Your task to perform on an android device: Go to Google Image 0: 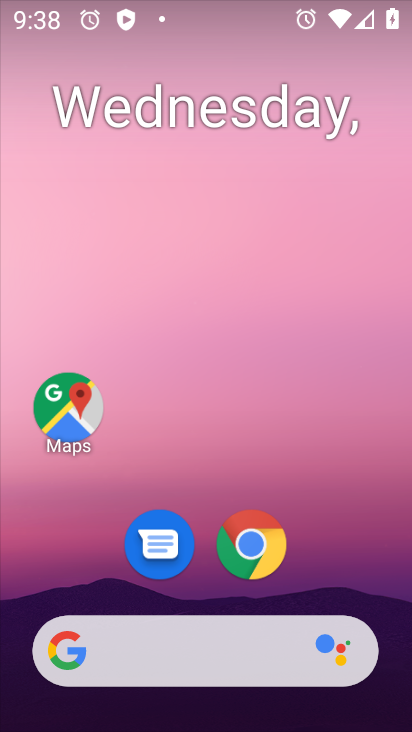
Step 0: drag from (371, 577) to (359, 149)
Your task to perform on an android device: Go to Google Image 1: 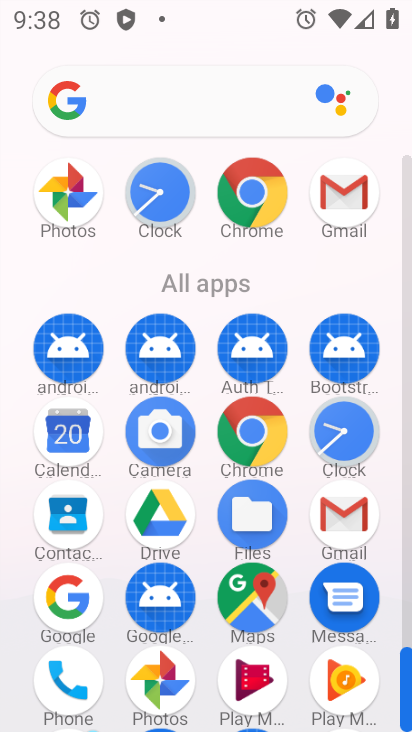
Step 1: click (79, 625)
Your task to perform on an android device: Go to Google Image 2: 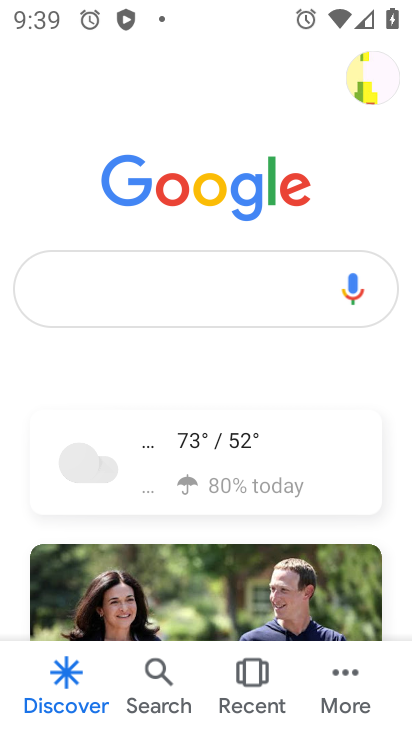
Step 2: task complete